Your task to perform on an android device: Go to location settings Image 0: 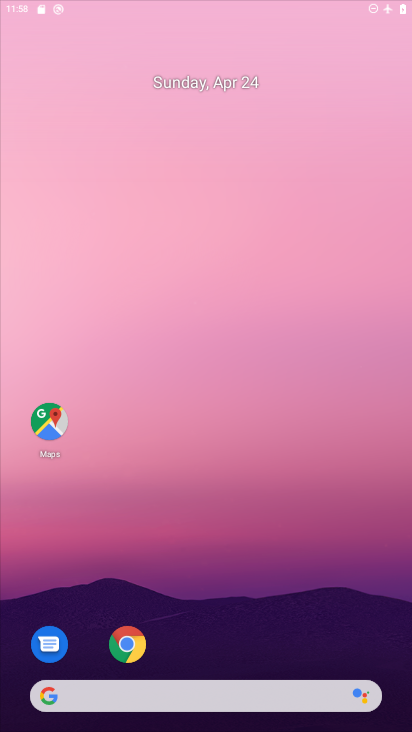
Step 0: click (266, 404)
Your task to perform on an android device: Go to location settings Image 1: 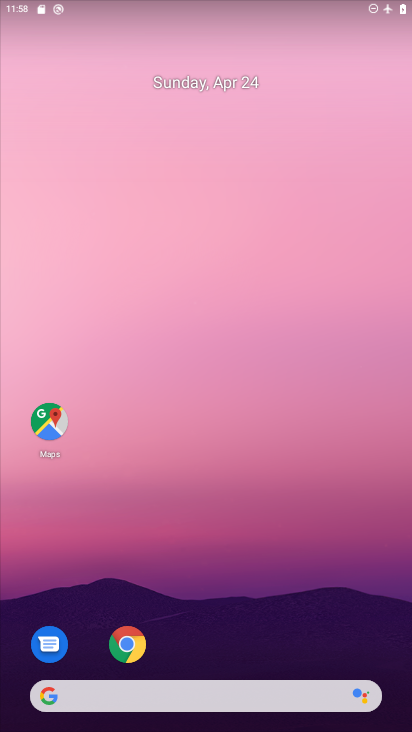
Step 1: drag from (175, 649) to (261, 46)
Your task to perform on an android device: Go to location settings Image 2: 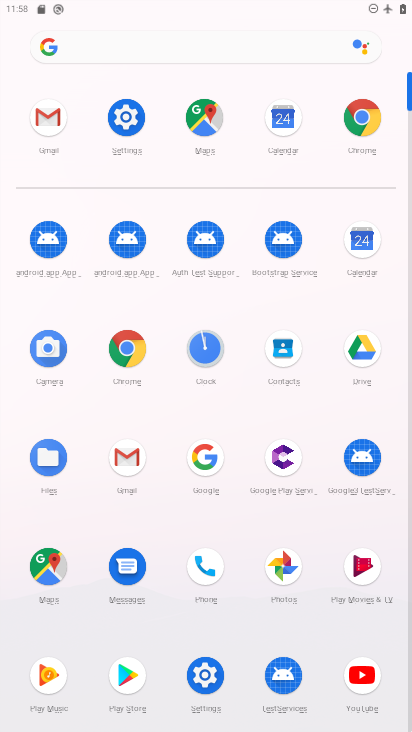
Step 2: click (115, 115)
Your task to perform on an android device: Go to location settings Image 3: 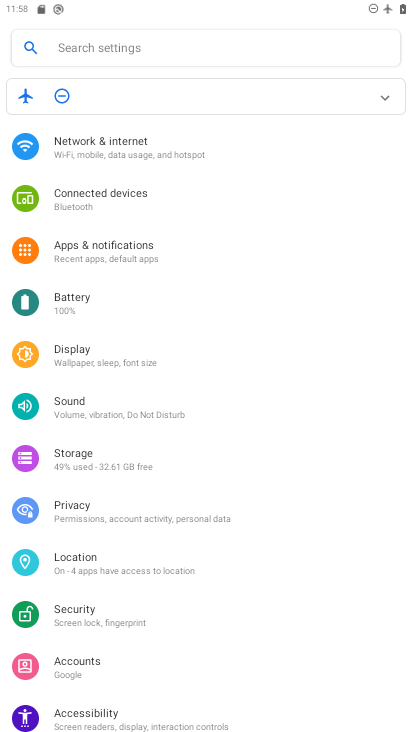
Step 3: click (78, 561)
Your task to perform on an android device: Go to location settings Image 4: 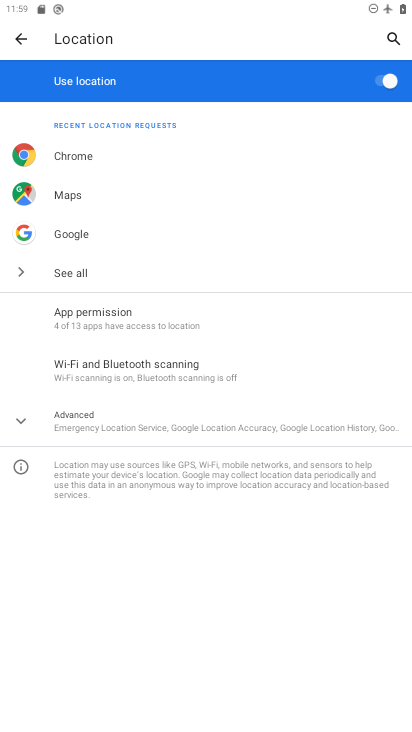
Step 4: task complete